Your task to perform on an android device: clear history in the chrome app Image 0: 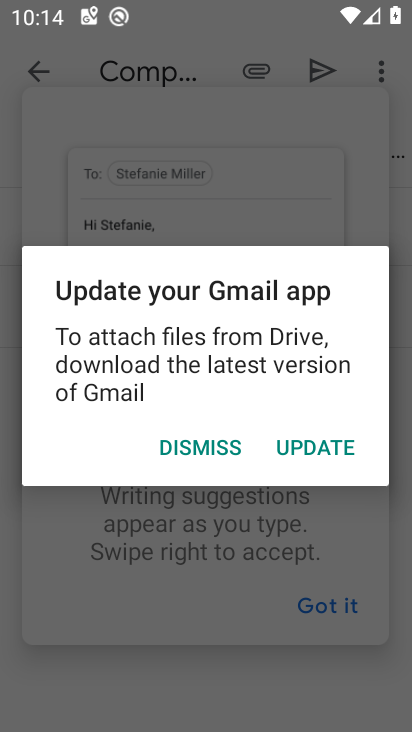
Step 0: press back button
Your task to perform on an android device: clear history in the chrome app Image 1: 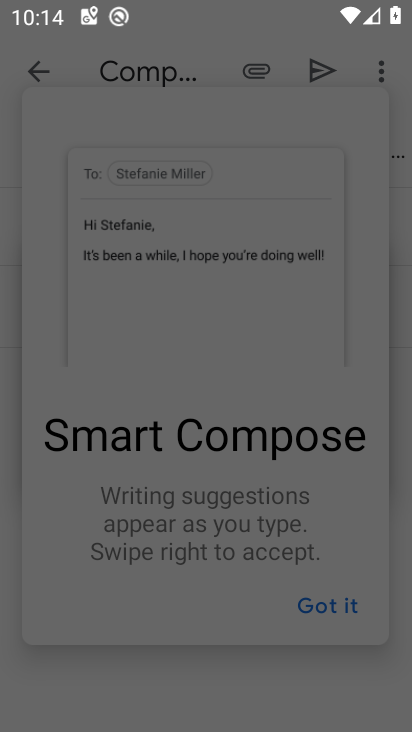
Step 1: press home button
Your task to perform on an android device: clear history in the chrome app Image 2: 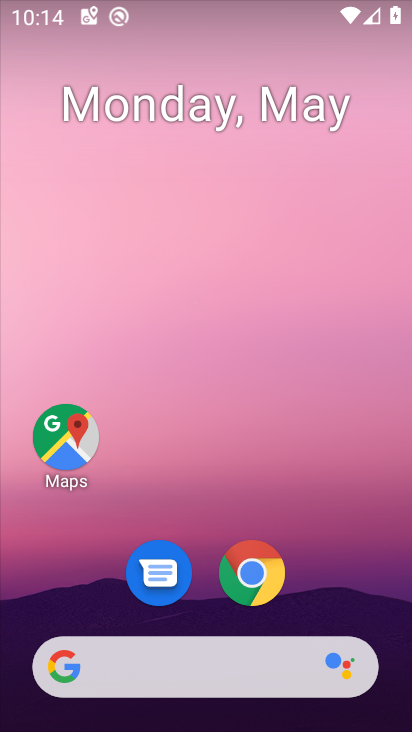
Step 2: click (250, 588)
Your task to perform on an android device: clear history in the chrome app Image 3: 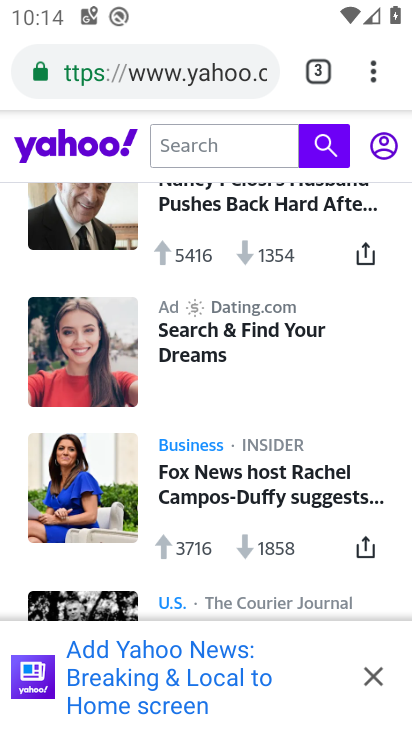
Step 3: drag from (372, 68) to (124, 413)
Your task to perform on an android device: clear history in the chrome app Image 4: 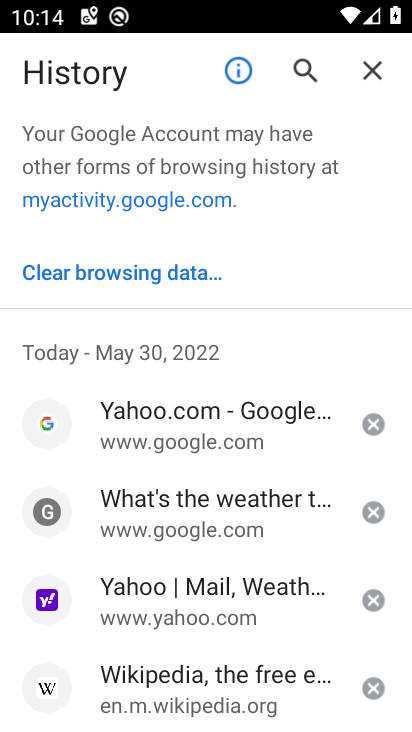
Step 4: click (162, 277)
Your task to perform on an android device: clear history in the chrome app Image 5: 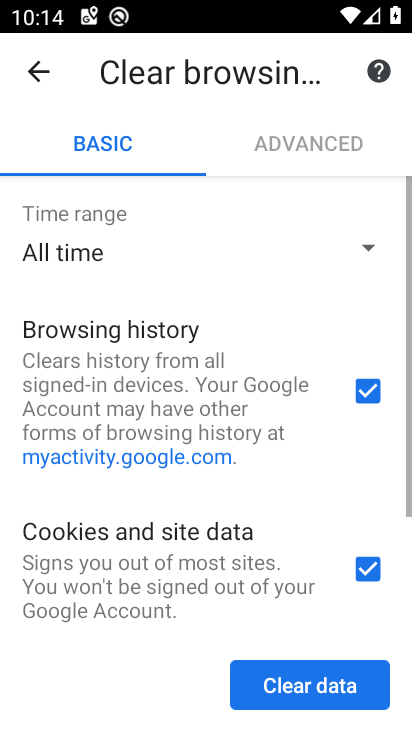
Step 5: drag from (246, 537) to (296, 107)
Your task to perform on an android device: clear history in the chrome app Image 6: 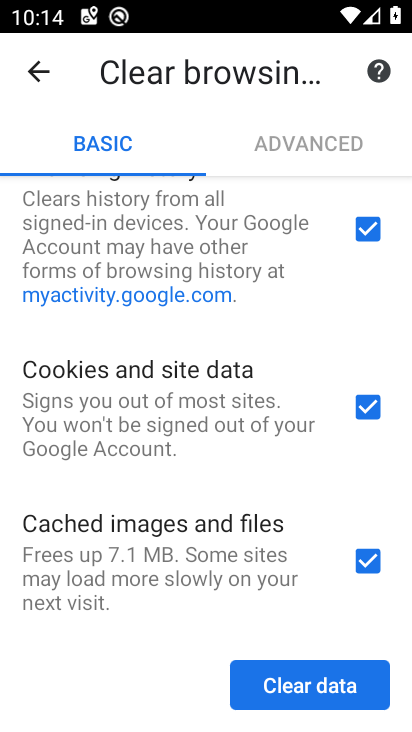
Step 6: click (285, 672)
Your task to perform on an android device: clear history in the chrome app Image 7: 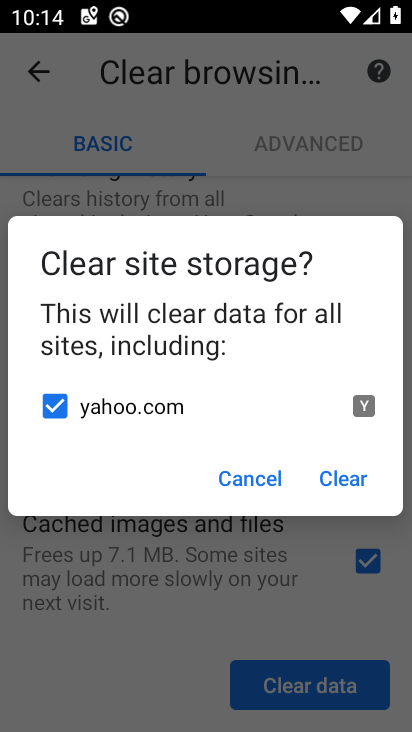
Step 7: click (350, 476)
Your task to perform on an android device: clear history in the chrome app Image 8: 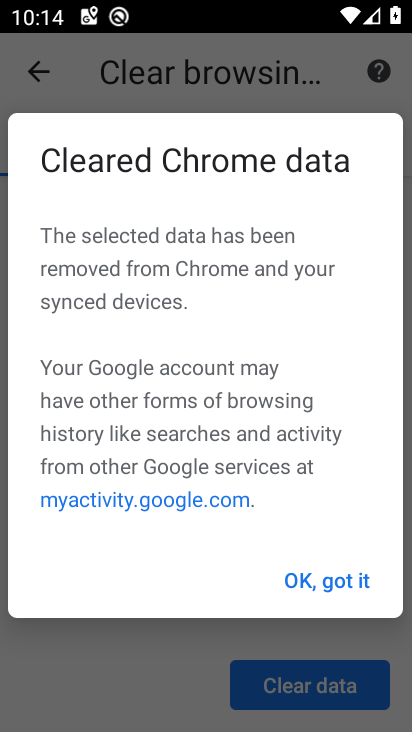
Step 8: click (319, 591)
Your task to perform on an android device: clear history in the chrome app Image 9: 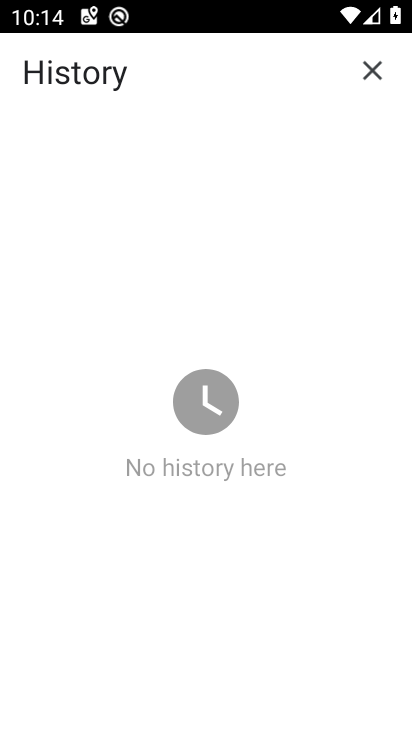
Step 9: task complete